Your task to perform on an android device: Do I have any events this weekend? Image 0: 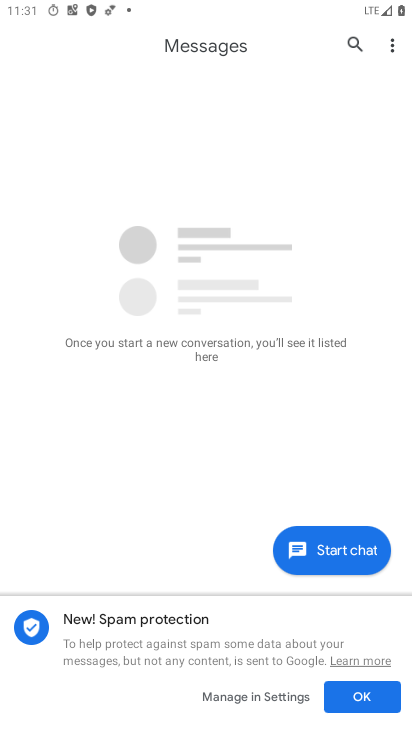
Step 0: press home button
Your task to perform on an android device: Do I have any events this weekend? Image 1: 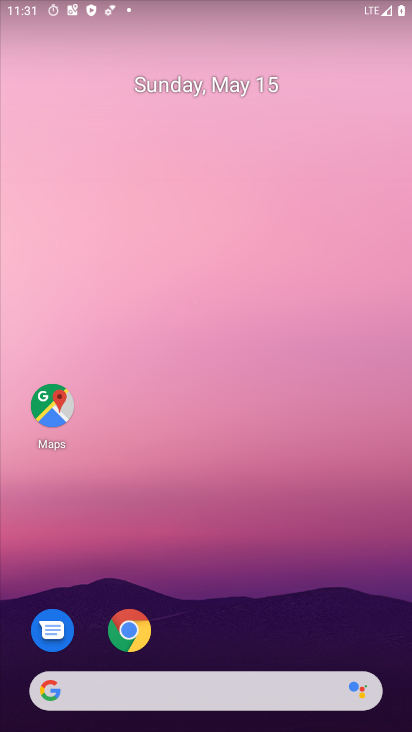
Step 1: drag from (213, 677) to (284, 116)
Your task to perform on an android device: Do I have any events this weekend? Image 2: 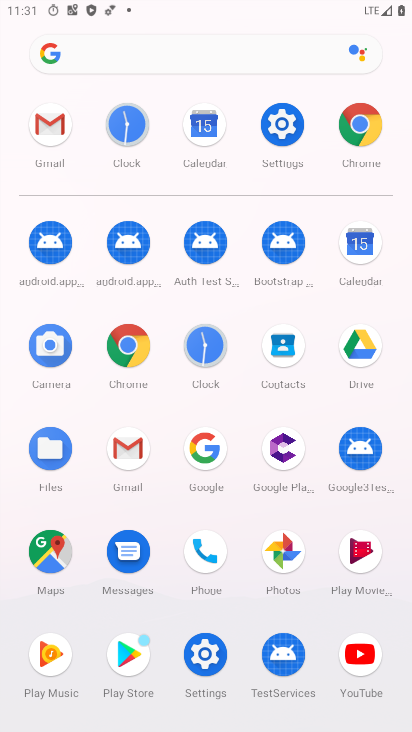
Step 2: click (358, 249)
Your task to perform on an android device: Do I have any events this weekend? Image 3: 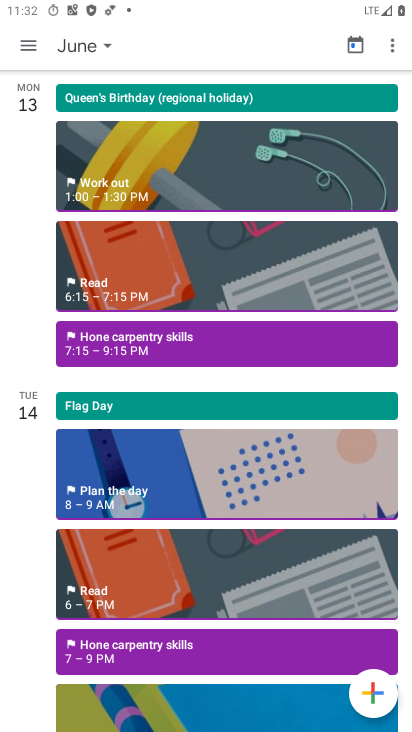
Step 3: drag from (165, 604) to (271, 78)
Your task to perform on an android device: Do I have any events this weekend? Image 4: 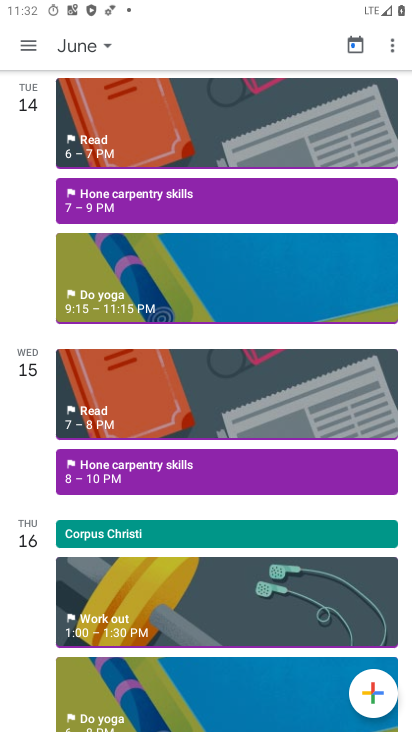
Step 4: drag from (187, 641) to (328, 64)
Your task to perform on an android device: Do I have any events this weekend? Image 5: 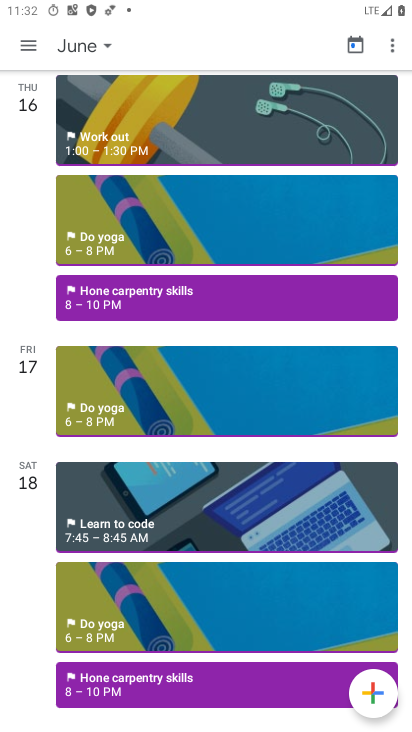
Step 5: drag from (215, 620) to (316, 48)
Your task to perform on an android device: Do I have any events this weekend? Image 6: 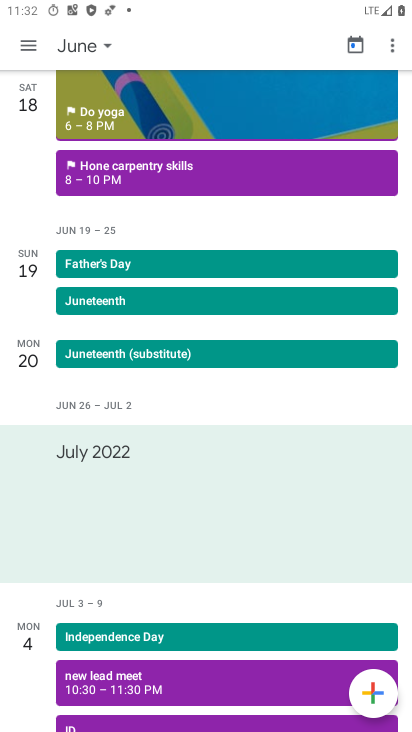
Step 6: click (176, 264)
Your task to perform on an android device: Do I have any events this weekend? Image 7: 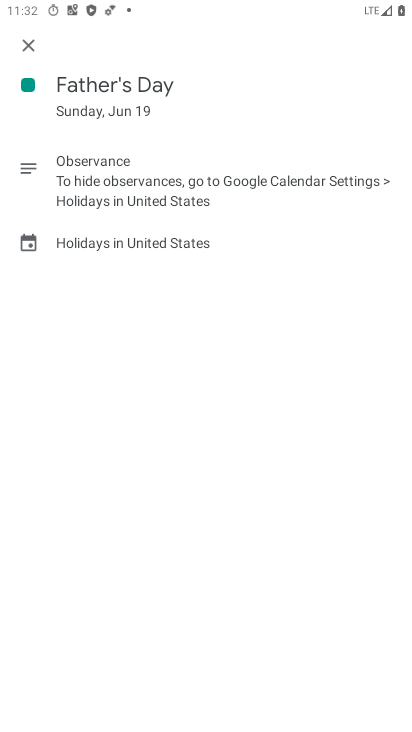
Step 7: task complete